Your task to perform on an android device: Go to Wikipedia Image 0: 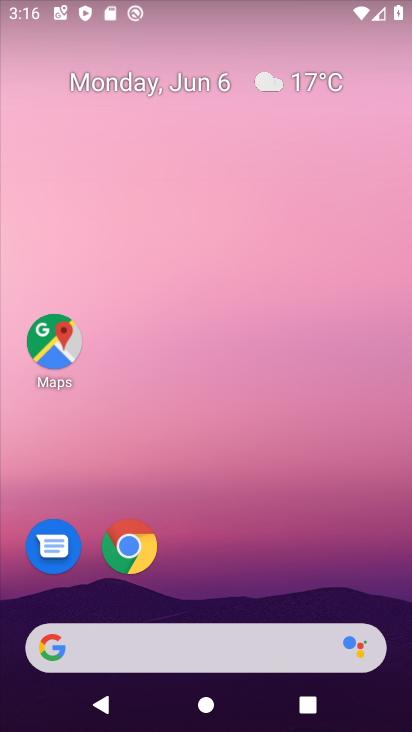
Step 0: drag from (302, 590) to (333, 47)
Your task to perform on an android device: Go to Wikipedia Image 1: 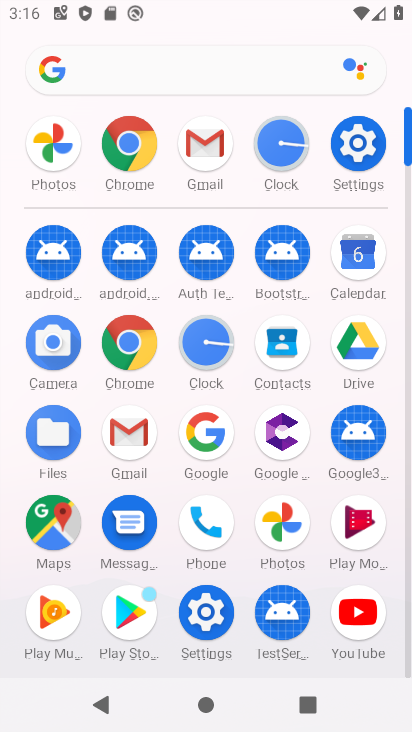
Step 1: click (351, 149)
Your task to perform on an android device: Go to Wikipedia Image 2: 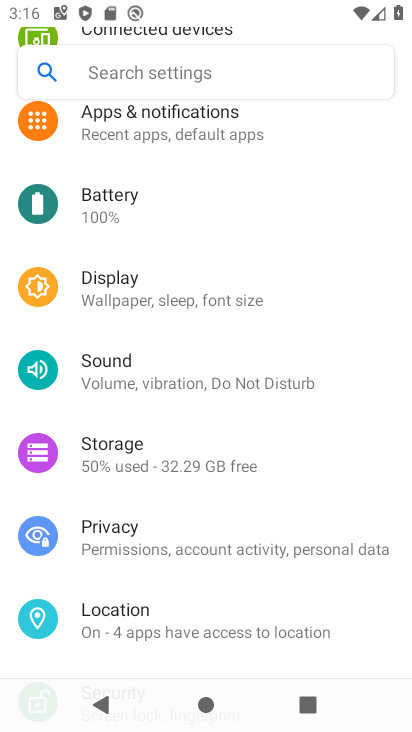
Step 2: press home button
Your task to perform on an android device: Go to Wikipedia Image 3: 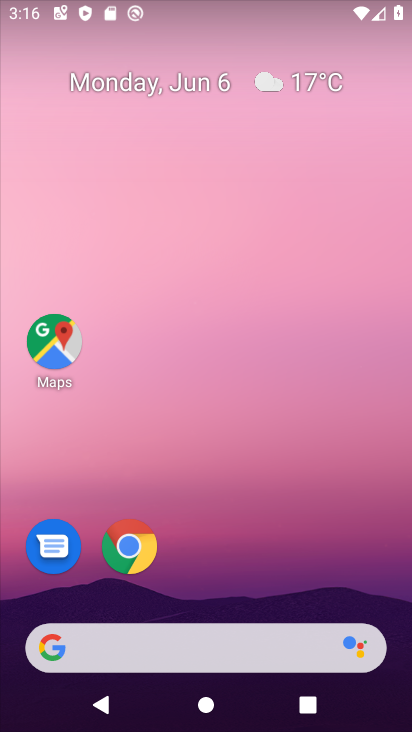
Step 3: click (177, 632)
Your task to perform on an android device: Go to Wikipedia Image 4: 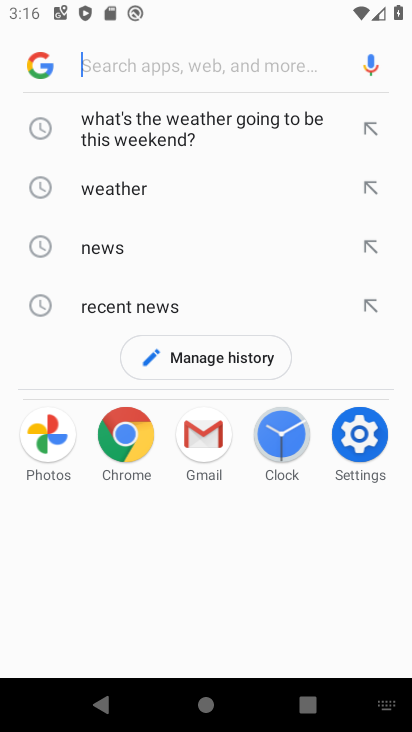
Step 4: type "wikipedia"
Your task to perform on an android device: Go to Wikipedia Image 5: 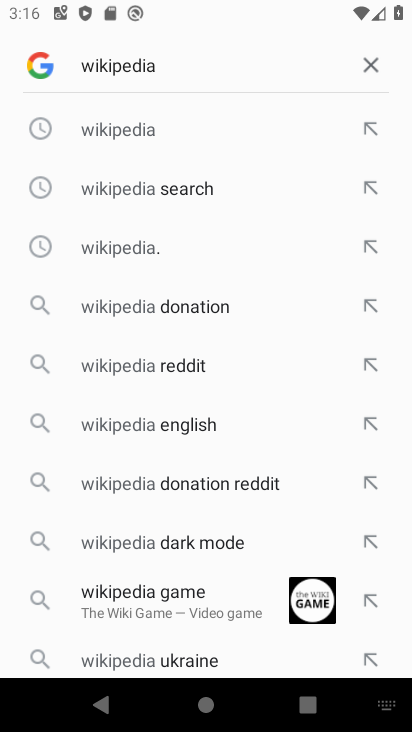
Step 5: click (116, 157)
Your task to perform on an android device: Go to Wikipedia Image 6: 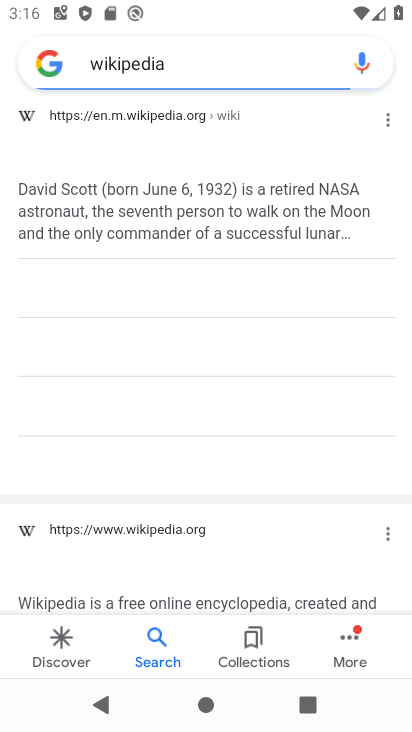
Step 6: task complete